Your task to perform on an android device: change notification settings in the gmail app Image 0: 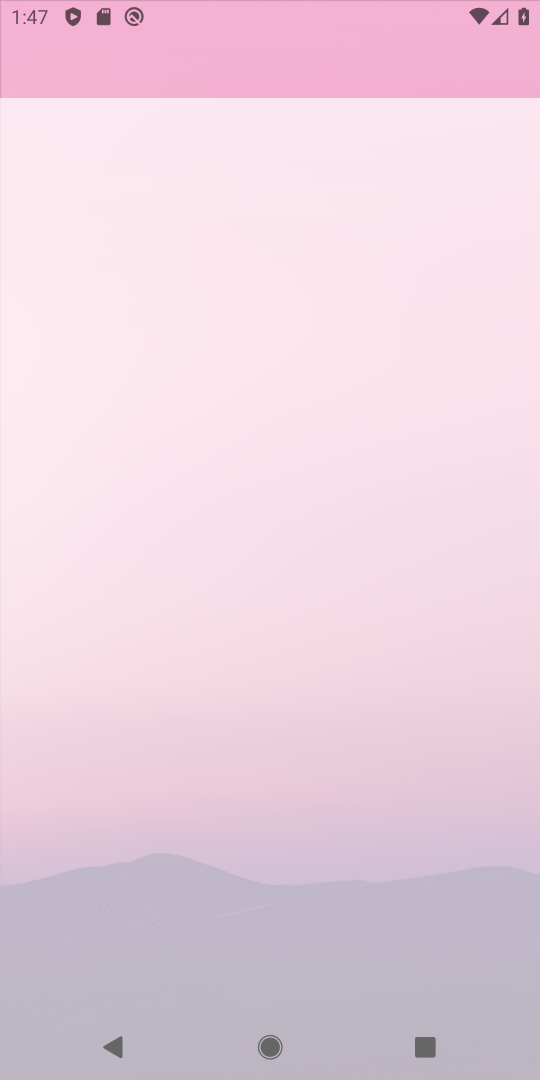
Step 0: press home button
Your task to perform on an android device: change notification settings in the gmail app Image 1: 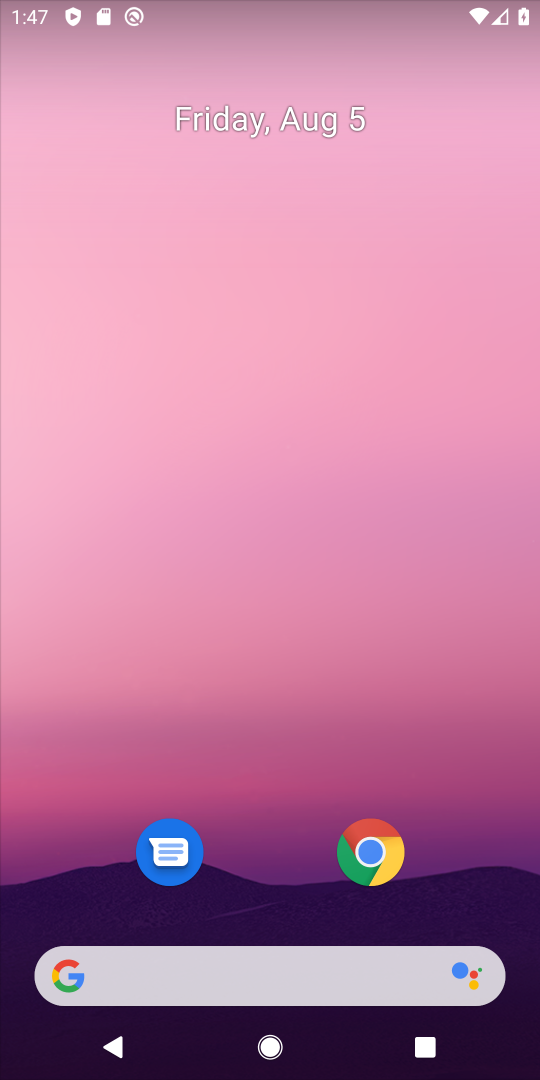
Step 1: drag from (277, 823) to (232, 125)
Your task to perform on an android device: change notification settings in the gmail app Image 2: 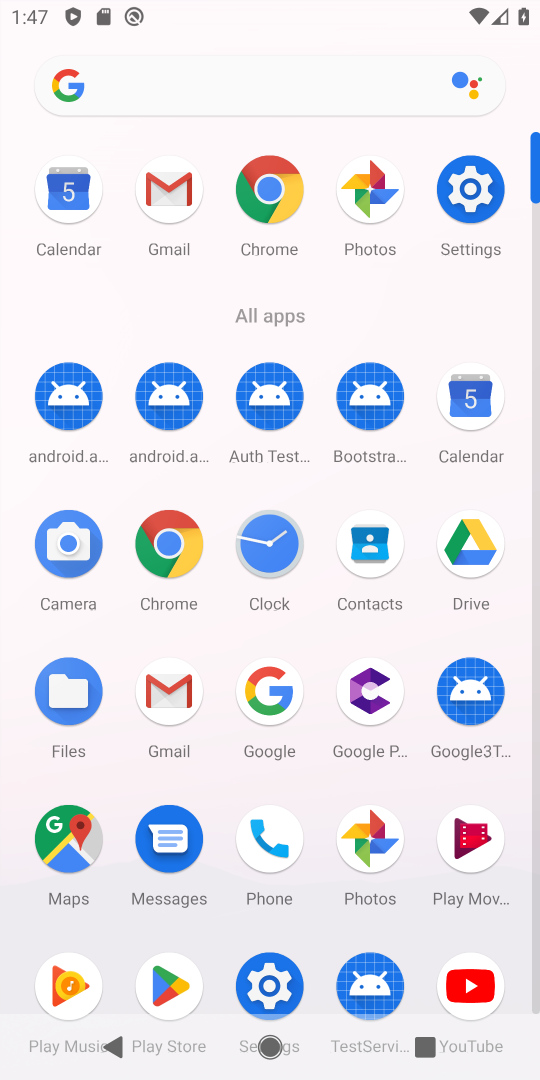
Step 2: click (183, 194)
Your task to perform on an android device: change notification settings in the gmail app Image 3: 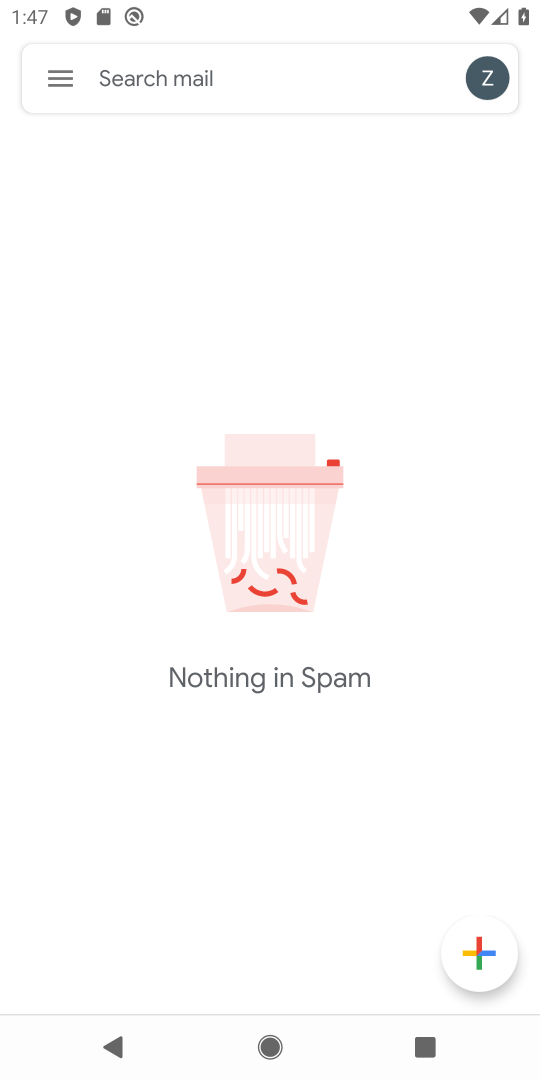
Step 3: click (60, 63)
Your task to perform on an android device: change notification settings in the gmail app Image 4: 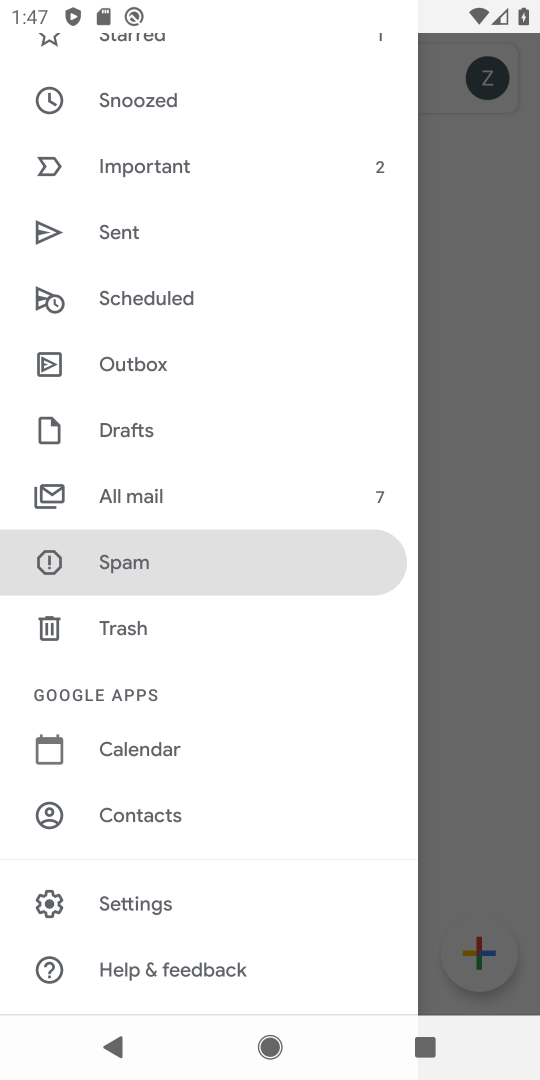
Step 4: click (134, 892)
Your task to perform on an android device: change notification settings in the gmail app Image 5: 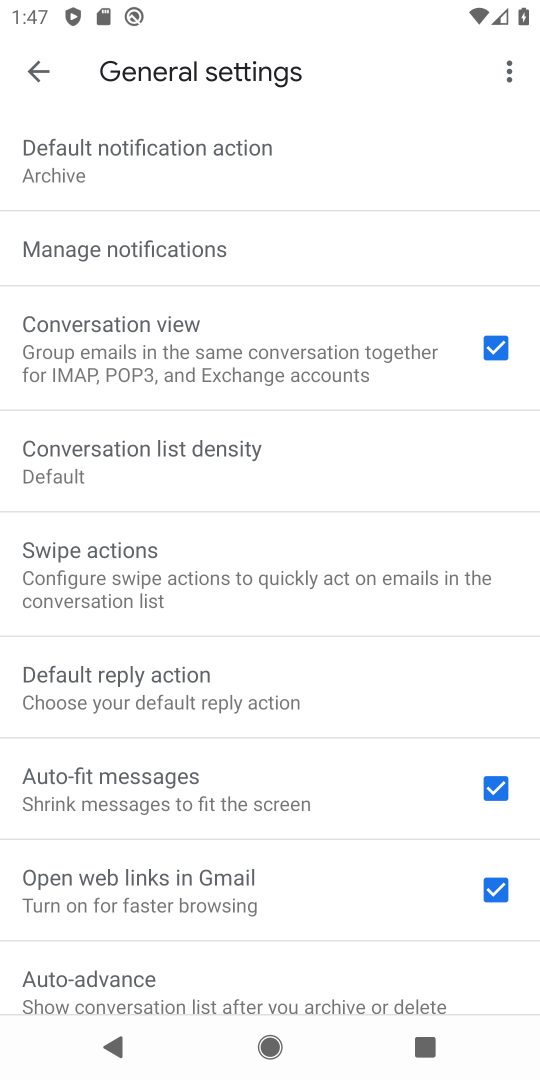
Step 5: click (142, 241)
Your task to perform on an android device: change notification settings in the gmail app Image 6: 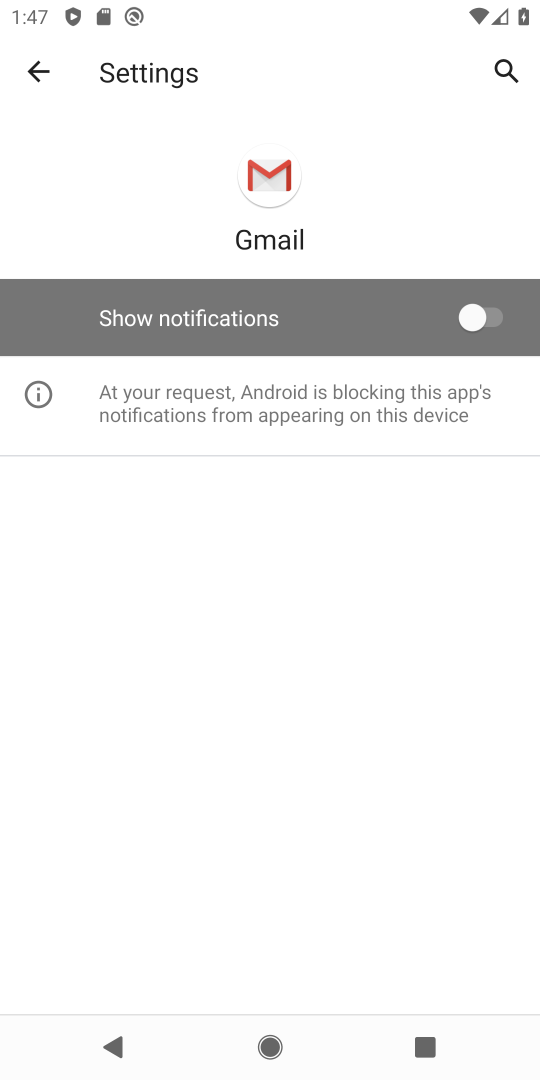
Step 6: click (477, 315)
Your task to perform on an android device: change notification settings in the gmail app Image 7: 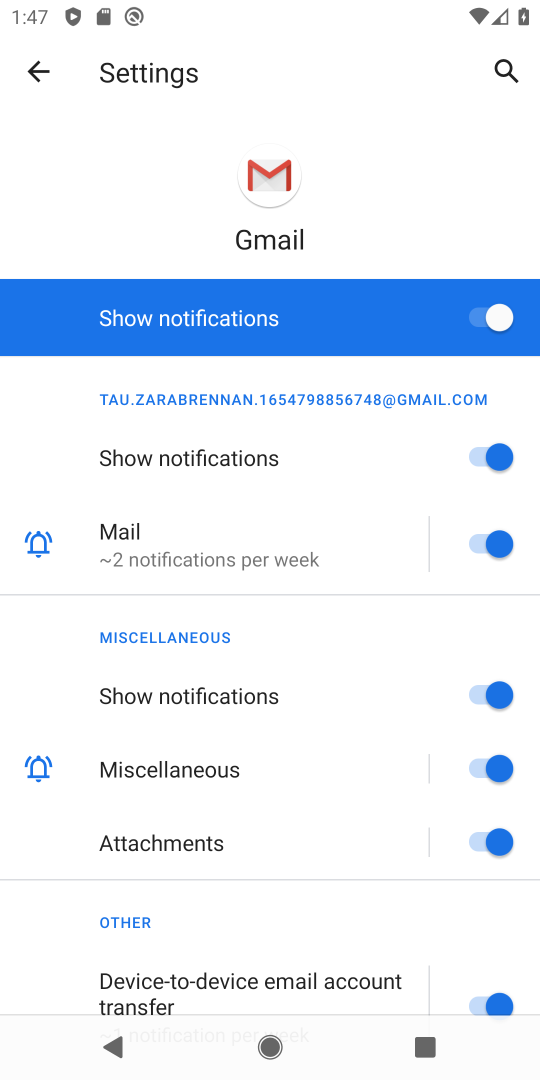
Step 7: task complete